Your task to perform on an android device: Go to Maps Image 0: 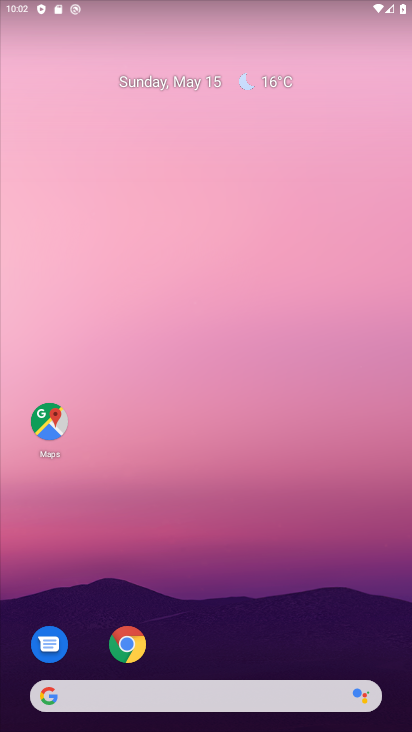
Step 0: click (58, 442)
Your task to perform on an android device: Go to Maps Image 1: 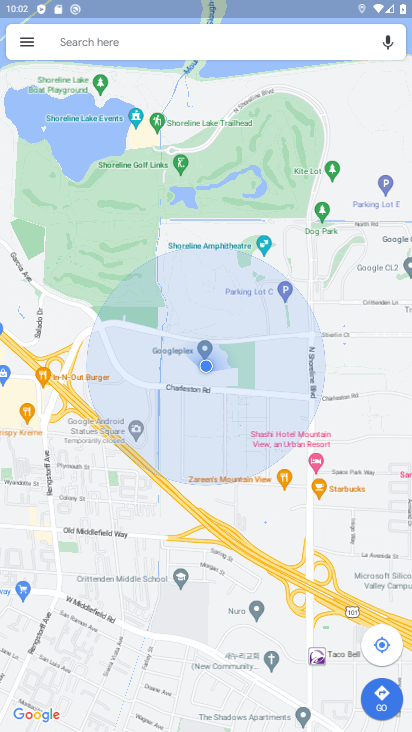
Step 1: task complete